Your task to perform on an android device: open wifi settings Image 0: 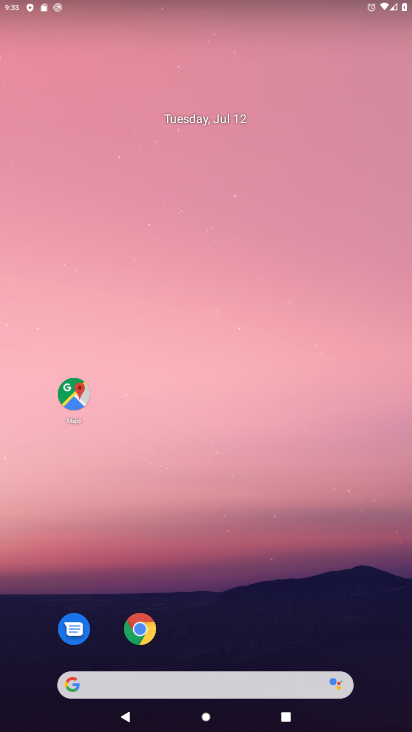
Step 0: drag from (349, 557) to (294, 198)
Your task to perform on an android device: open wifi settings Image 1: 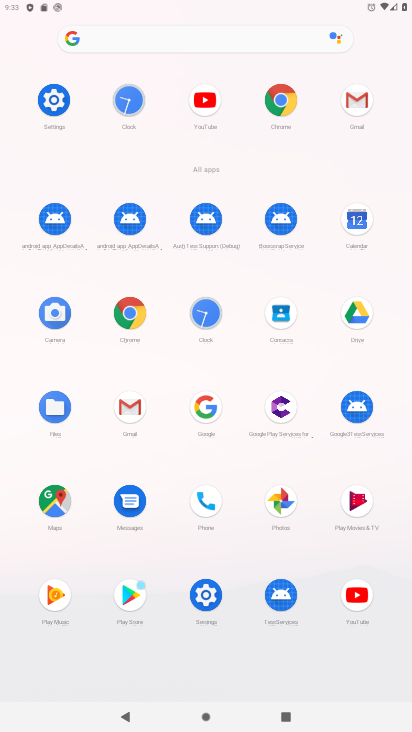
Step 1: click (206, 597)
Your task to perform on an android device: open wifi settings Image 2: 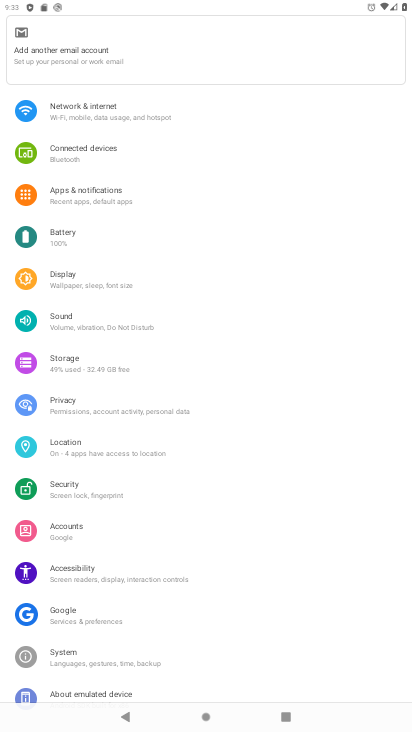
Step 2: click (81, 104)
Your task to perform on an android device: open wifi settings Image 3: 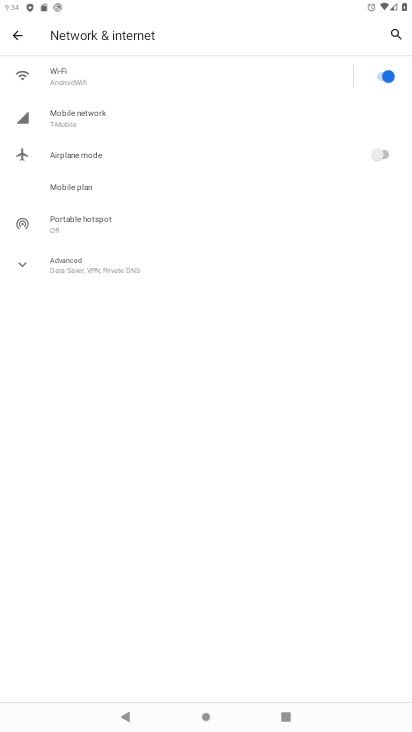
Step 3: click (57, 71)
Your task to perform on an android device: open wifi settings Image 4: 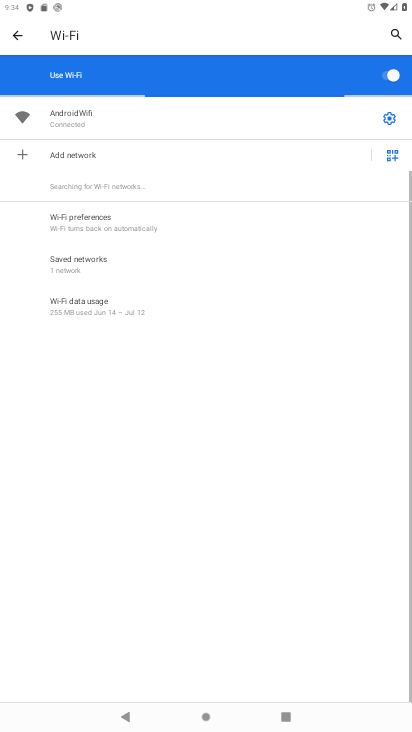
Step 4: task complete